Your task to perform on an android device: Open the calendar app, open the side menu, and click the "Day" option Image 0: 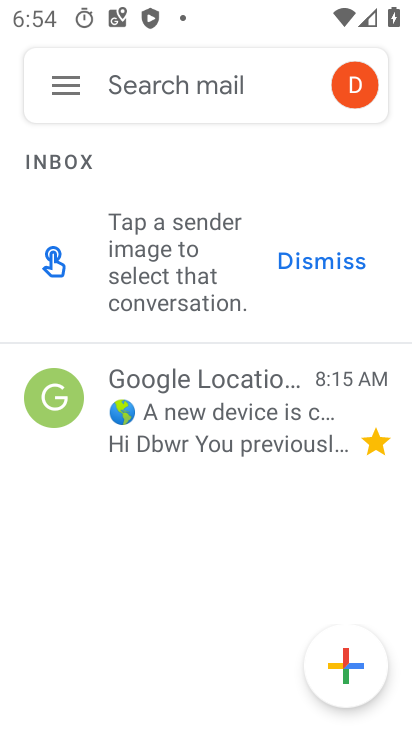
Step 0: press home button
Your task to perform on an android device: Open the calendar app, open the side menu, and click the "Day" option Image 1: 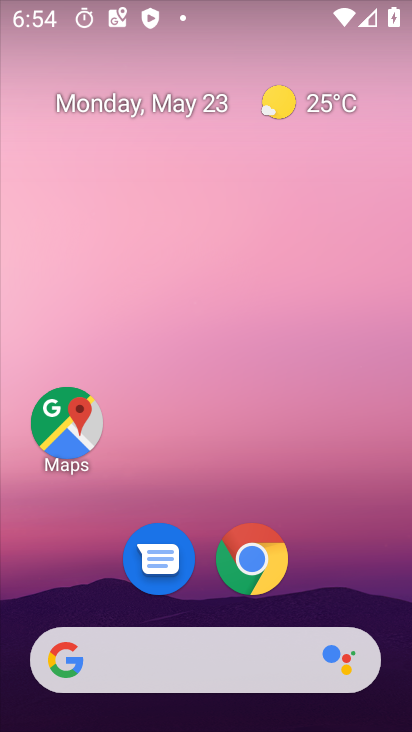
Step 1: drag from (388, 666) to (319, 59)
Your task to perform on an android device: Open the calendar app, open the side menu, and click the "Day" option Image 2: 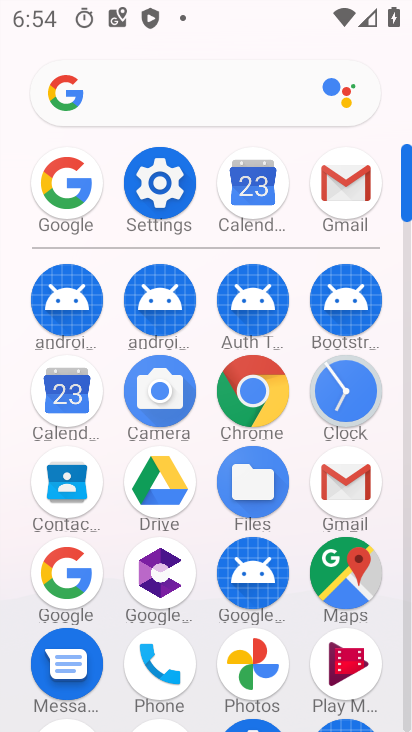
Step 2: click (67, 398)
Your task to perform on an android device: Open the calendar app, open the side menu, and click the "Day" option Image 3: 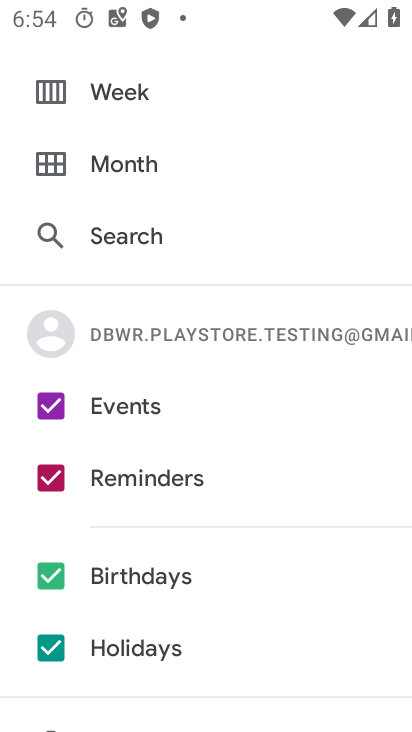
Step 3: drag from (165, 109) to (205, 590)
Your task to perform on an android device: Open the calendar app, open the side menu, and click the "Day" option Image 4: 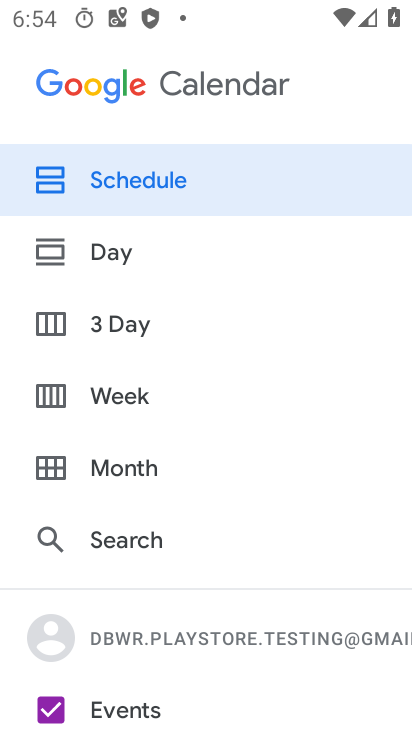
Step 4: click (130, 254)
Your task to perform on an android device: Open the calendar app, open the side menu, and click the "Day" option Image 5: 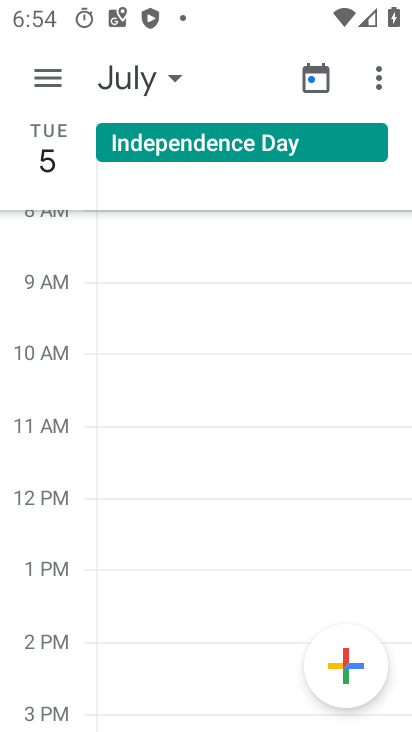
Step 5: task complete